Your task to perform on an android device: What is the recent news? Image 0: 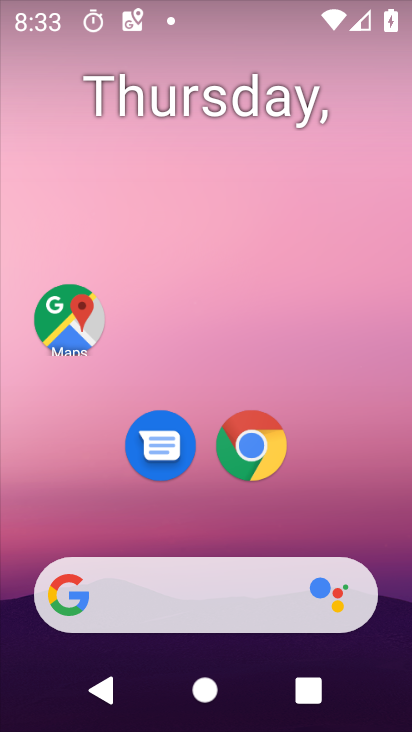
Step 0: click (110, 594)
Your task to perform on an android device: What is the recent news? Image 1: 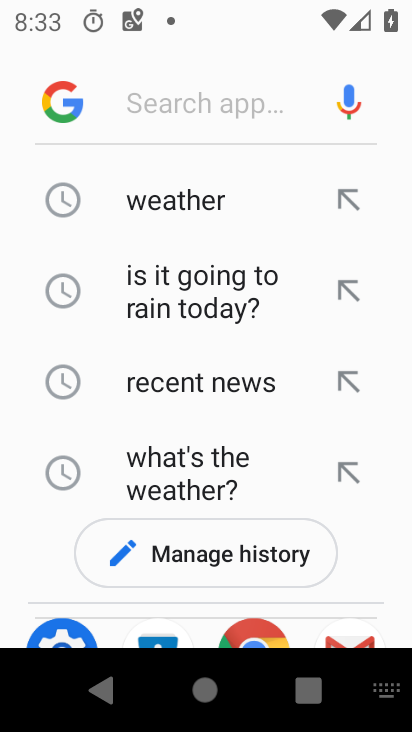
Step 1: click (180, 379)
Your task to perform on an android device: What is the recent news? Image 2: 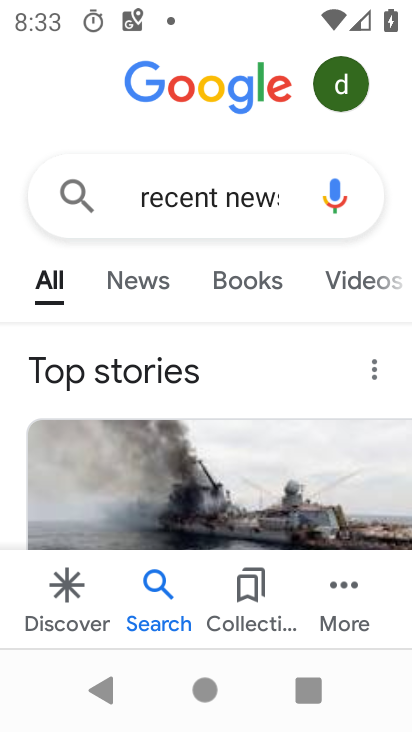
Step 2: task complete